Your task to perform on an android device: Show me recent news Image 0: 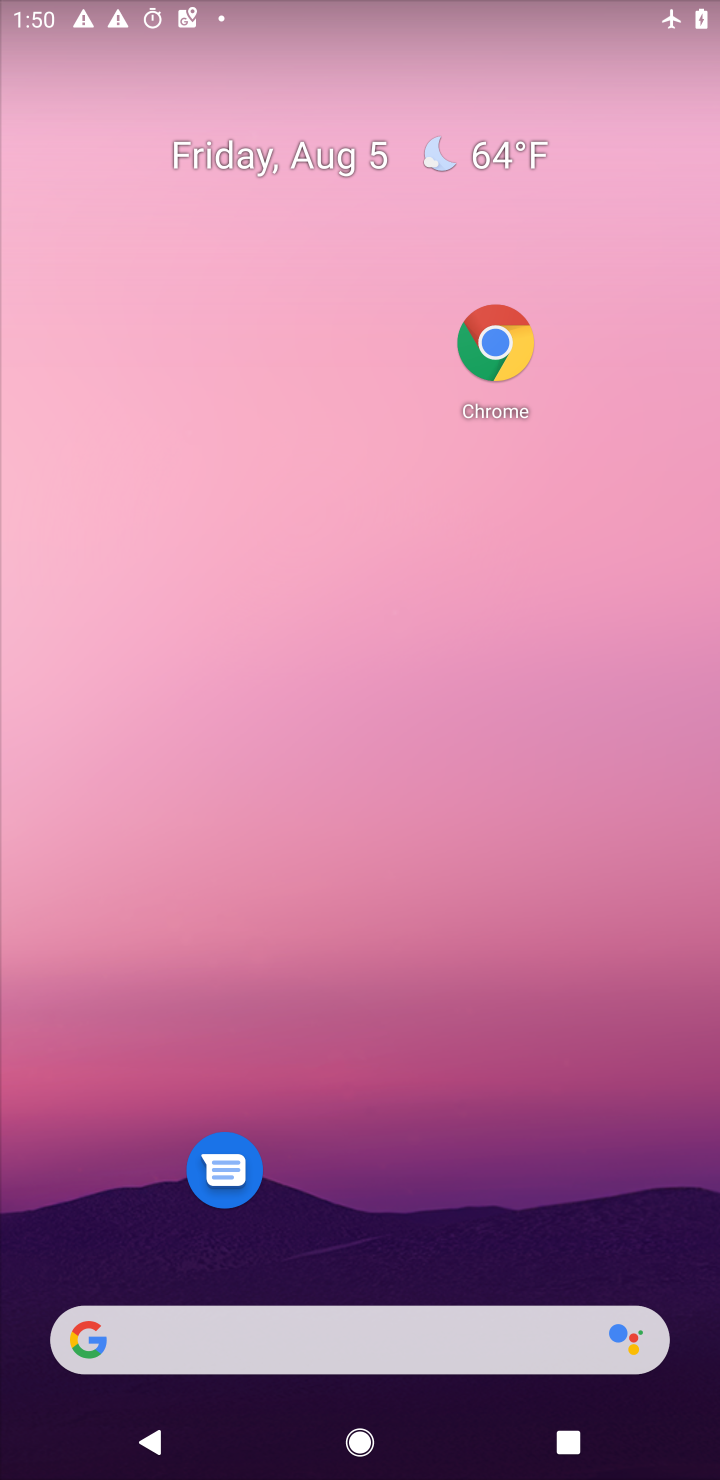
Step 0: press home button
Your task to perform on an android device: Show me recent news Image 1: 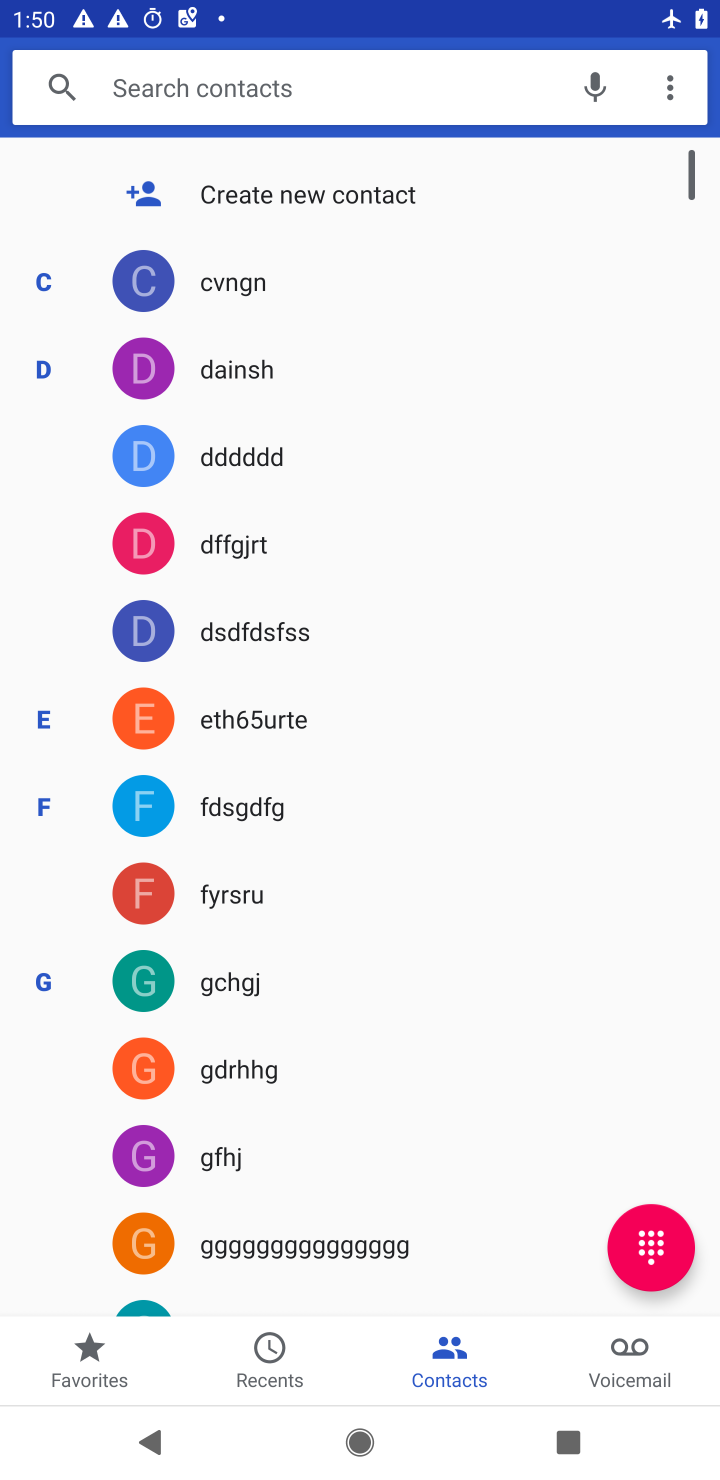
Step 1: drag from (444, 1235) to (494, 58)
Your task to perform on an android device: Show me recent news Image 2: 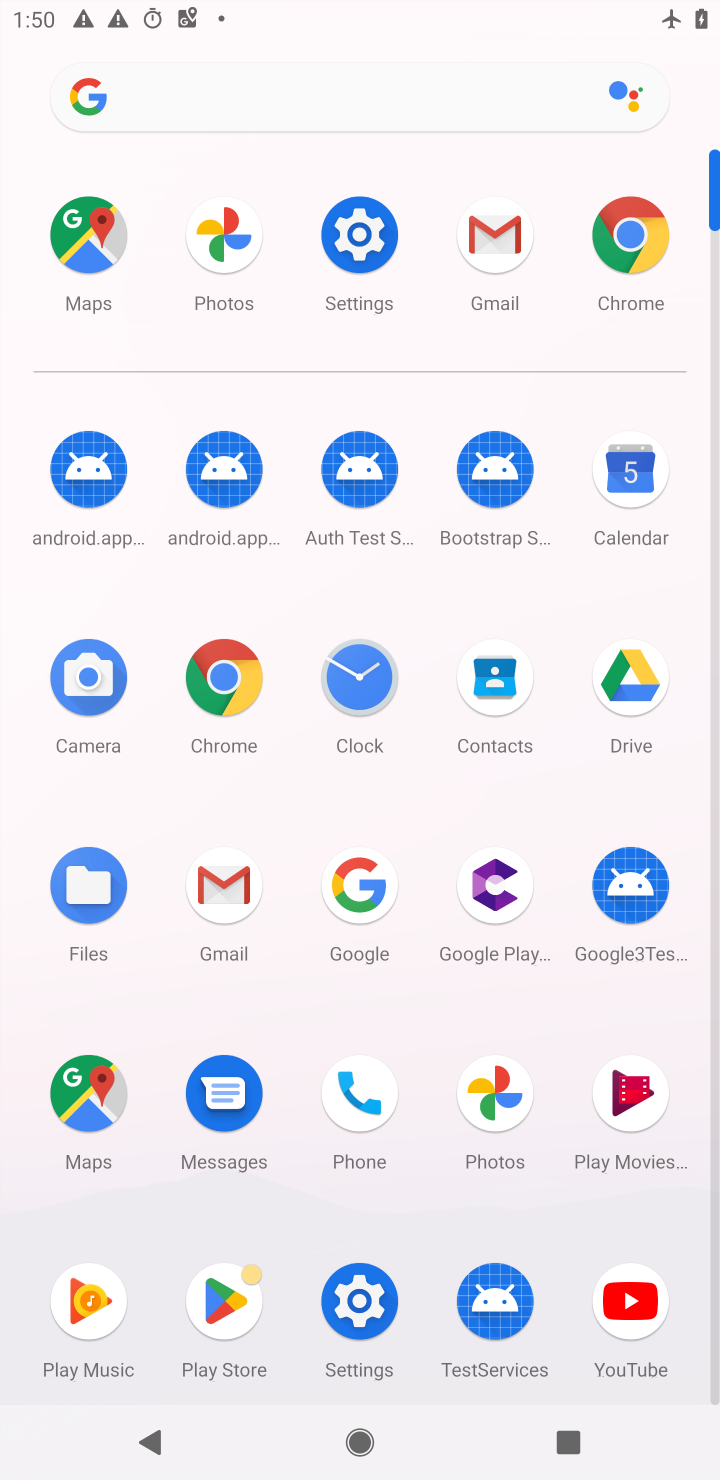
Step 2: click (353, 888)
Your task to perform on an android device: Show me recent news Image 3: 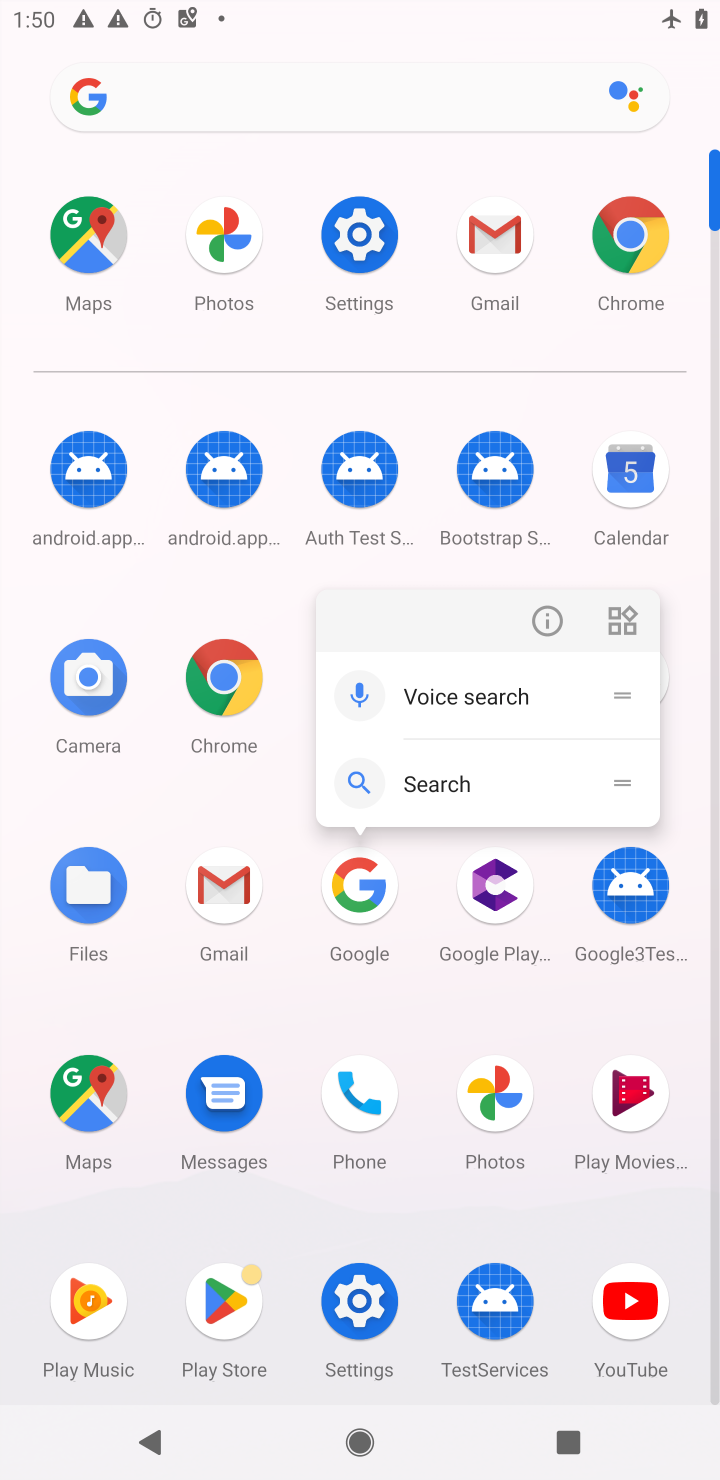
Step 3: click (381, 897)
Your task to perform on an android device: Show me recent news Image 4: 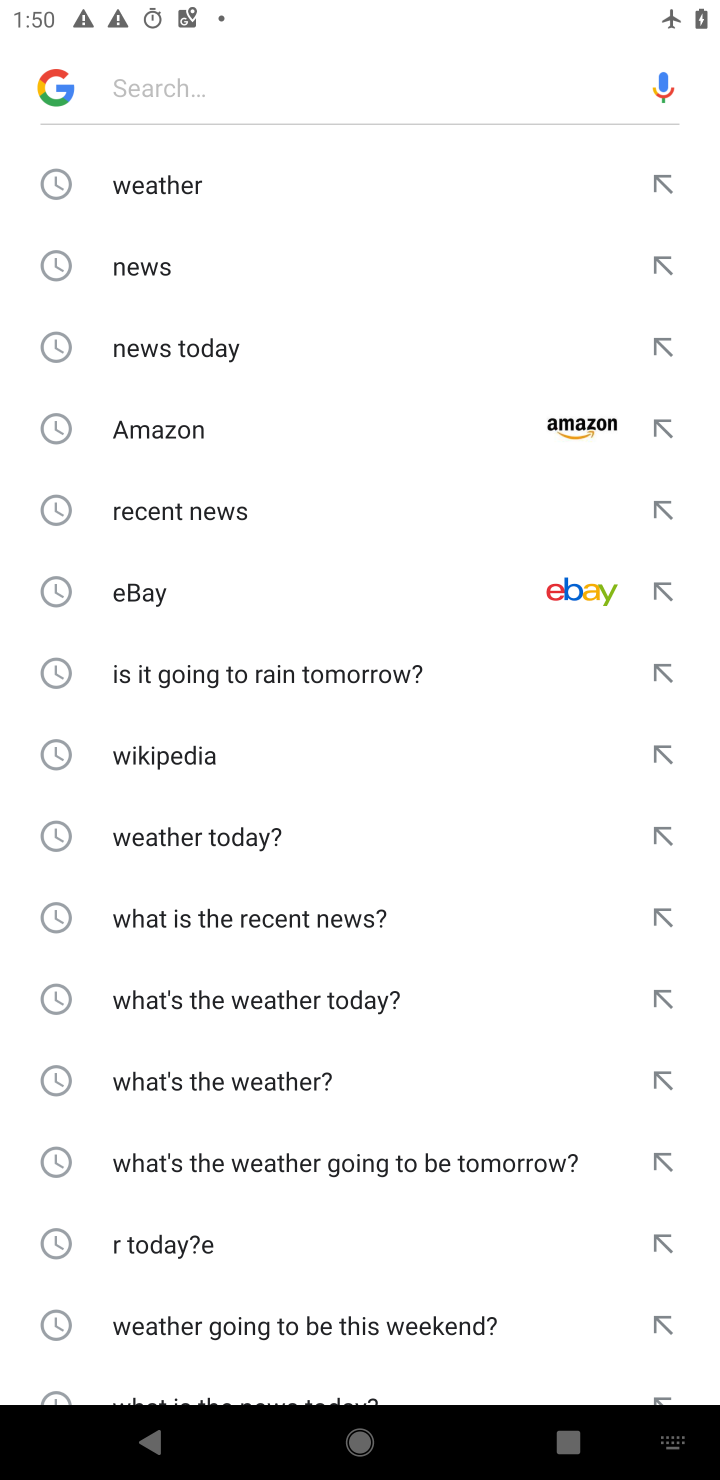
Step 4: click (252, 515)
Your task to perform on an android device: Show me recent news Image 5: 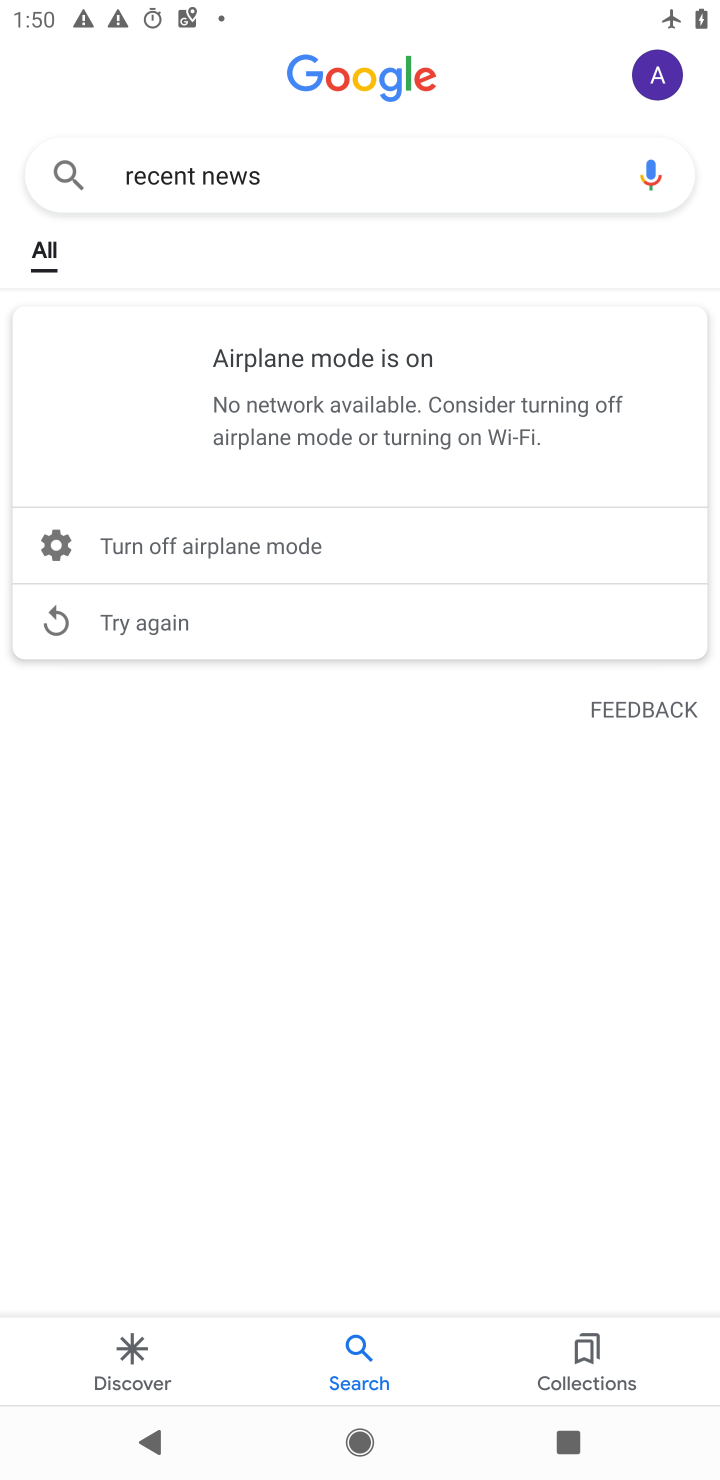
Step 5: task complete